Your task to perform on an android device: Play the new Selena Gomez video on YouTube Image 0: 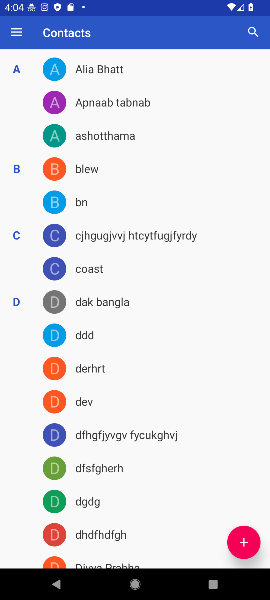
Step 0: press home button
Your task to perform on an android device: Play the new Selena Gomez video on YouTube Image 1: 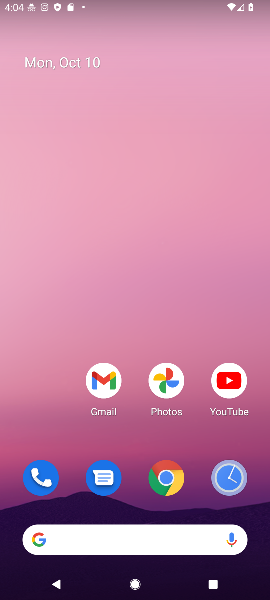
Step 1: click (228, 381)
Your task to perform on an android device: Play the new Selena Gomez video on YouTube Image 2: 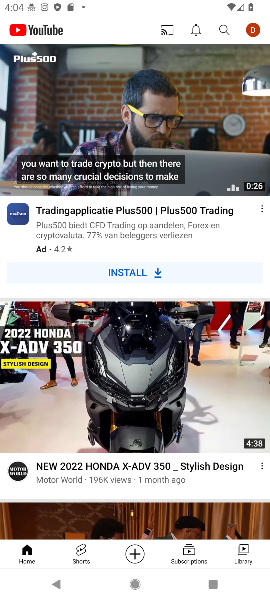
Step 2: click (223, 23)
Your task to perform on an android device: Play the new Selena Gomez video on YouTube Image 3: 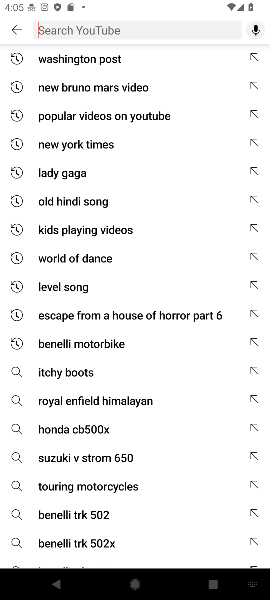
Step 3: type "selena gomez new video"
Your task to perform on an android device: Play the new Selena Gomez video on YouTube Image 4: 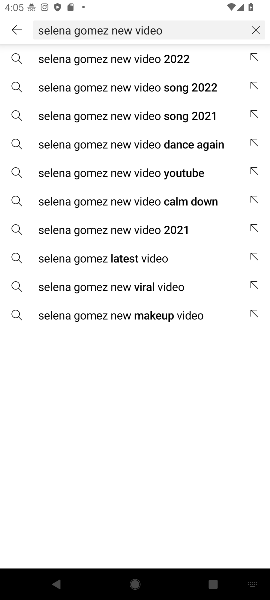
Step 4: click (122, 57)
Your task to perform on an android device: Play the new Selena Gomez video on YouTube Image 5: 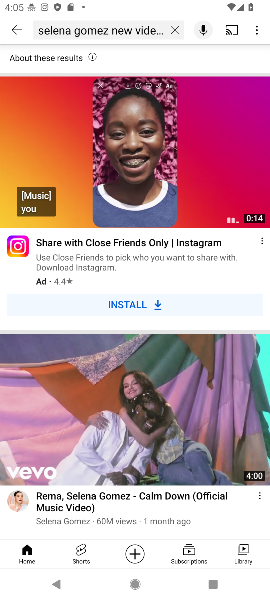
Step 5: click (156, 353)
Your task to perform on an android device: Play the new Selena Gomez video on YouTube Image 6: 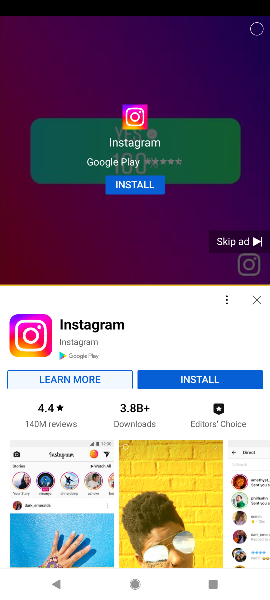
Step 6: task complete